Your task to perform on an android device: check the backup settings in the google photos Image 0: 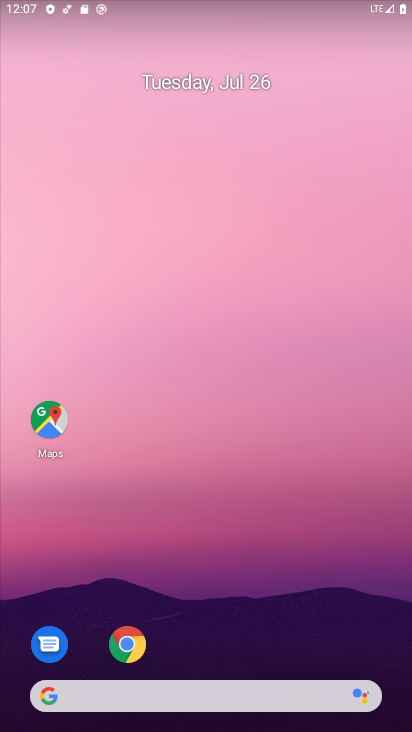
Step 0: drag from (144, 716) to (246, 104)
Your task to perform on an android device: check the backup settings in the google photos Image 1: 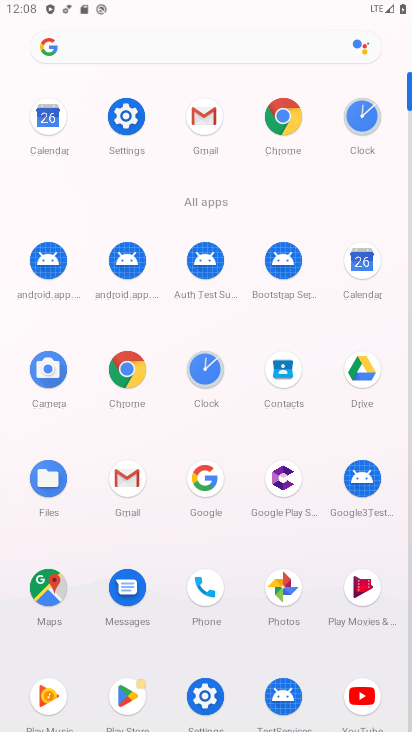
Step 1: click (284, 590)
Your task to perform on an android device: check the backup settings in the google photos Image 2: 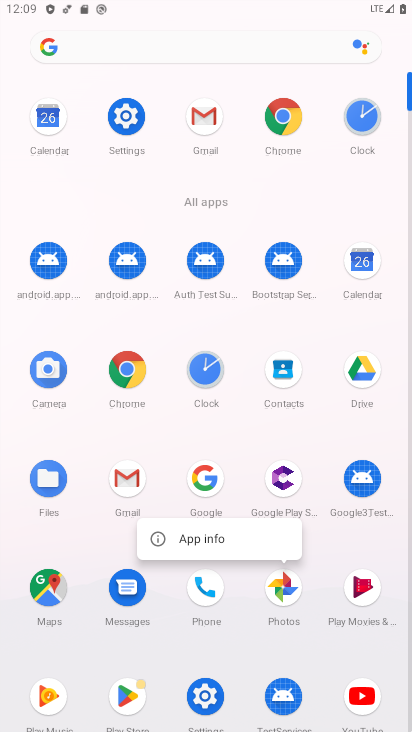
Step 2: click (287, 593)
Your task to perform on an android device: check the backup settings in the google photos Image 3: 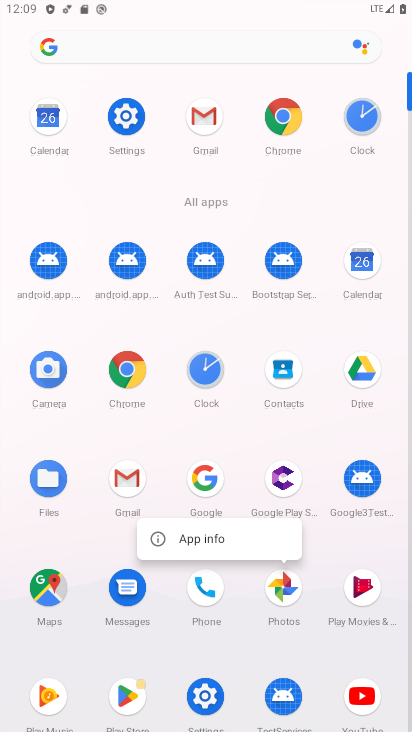
Step 3: click (287, 590)
Your task to perform on an android device: check the backup settings in the google photos Image 4: 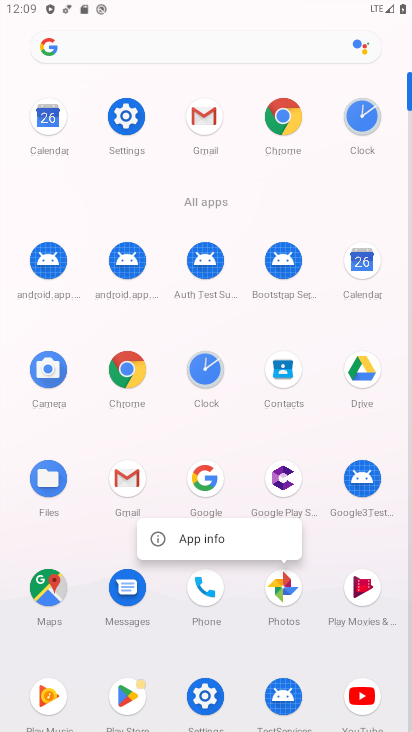
Step 4: click (287, 590)
Your task to perform on an android device: check the backup settings in the google photos Image 5: 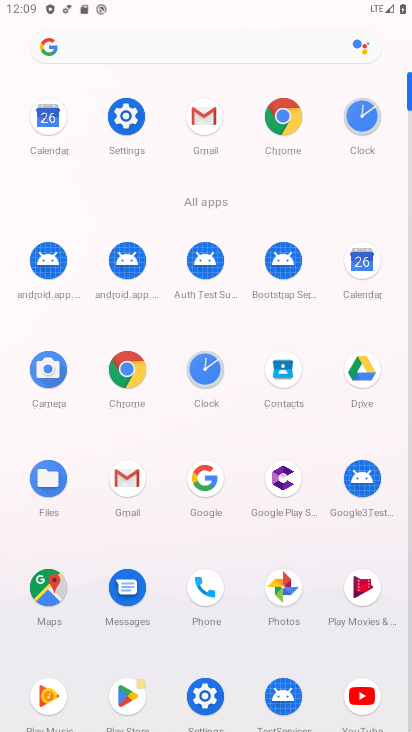
Step 5: click (287, 590)
Your task to perform on an android device: check the backup settings in the google photos Image 6: 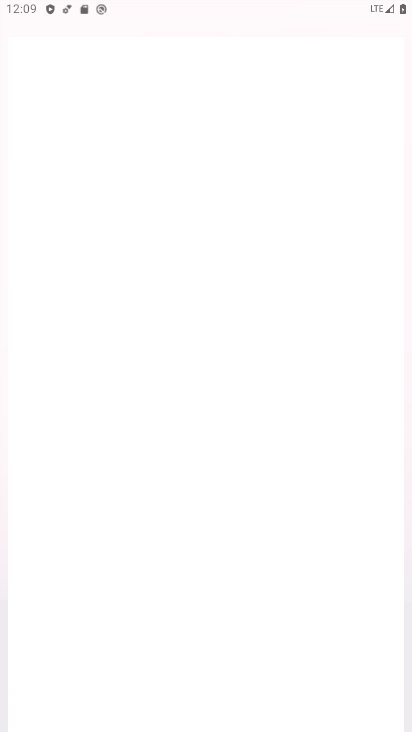
Step 6: click (287, 590)
Your task to perform on an android device: check the backup settings in the google photos Image 7: 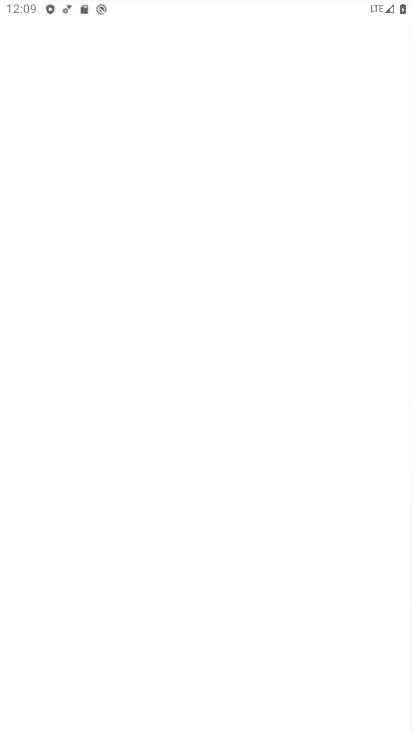
Step 7: click (287, 590)
Your task to perform on an android device: check the backup settings in the google photos Image 8: 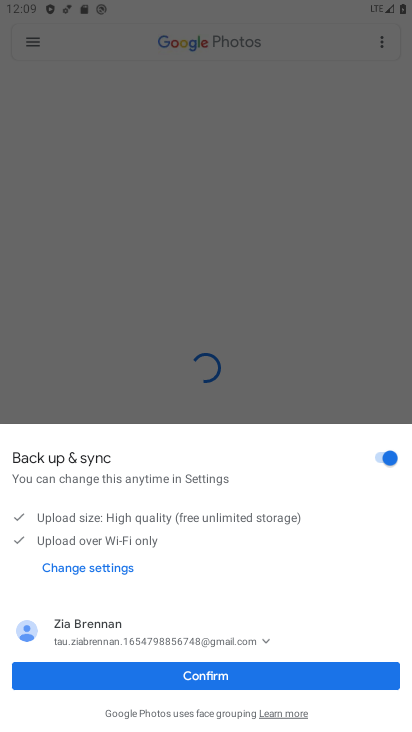
Step 8: click (296, 674)
Your task to perform on an android device: check the backup settings in the google photos Image 9: 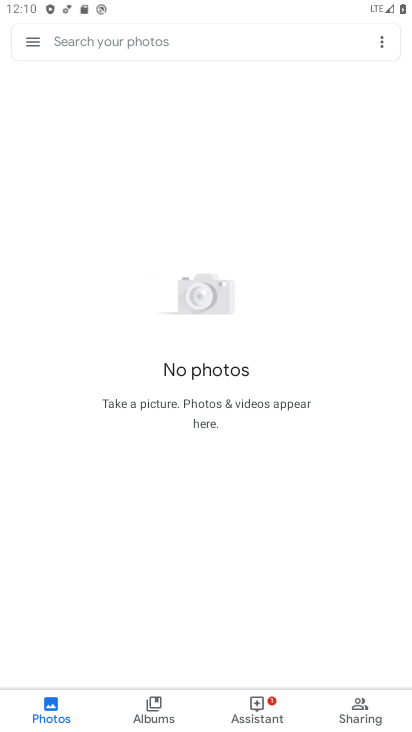
Step 9: click (32, 40)
Your task to perform on an android device: check the backup settings in the google photos Image 10: 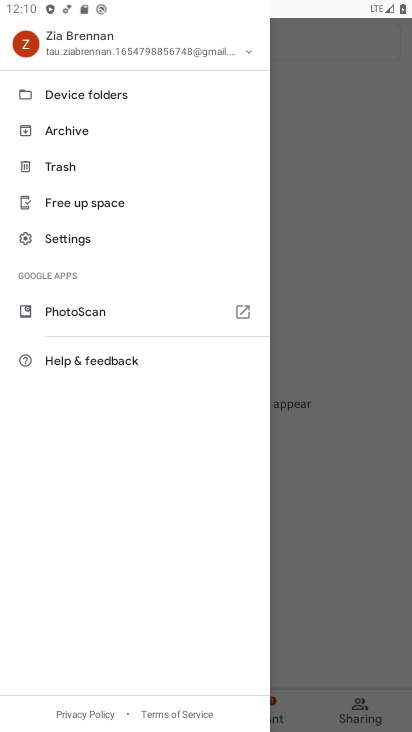
Step 10: click (82, 233)
Your task to perform on an android device: check the backup settings in the google photos Image 11: 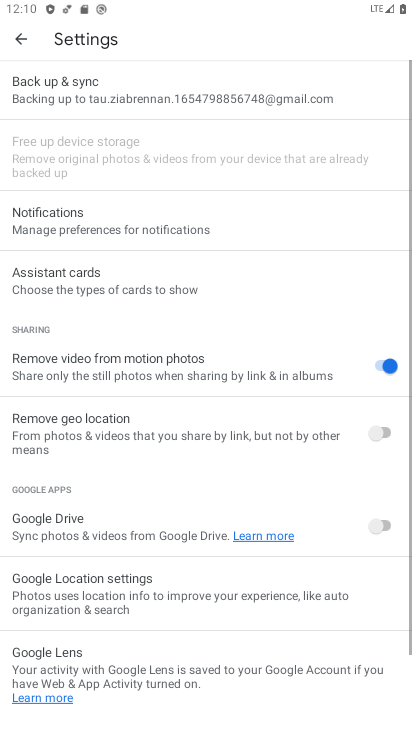
Step 11: click (159, 95)
Your task to perform on an android device: check the backup settings in the google photos Image 12: 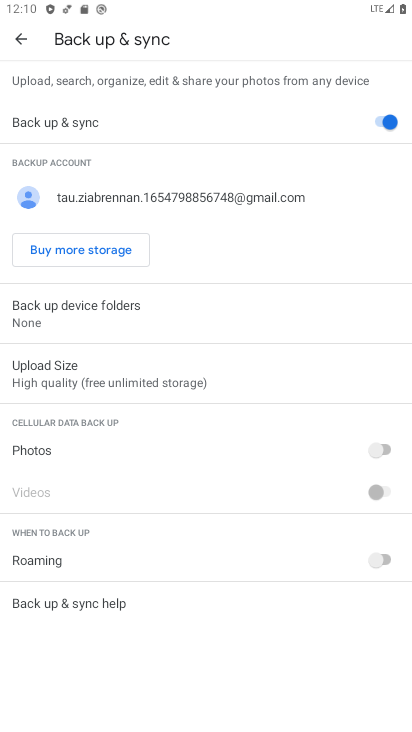
Step 12: task complete